Your task to perform on an android device: turn off smart reply in the gmail app Image 0: 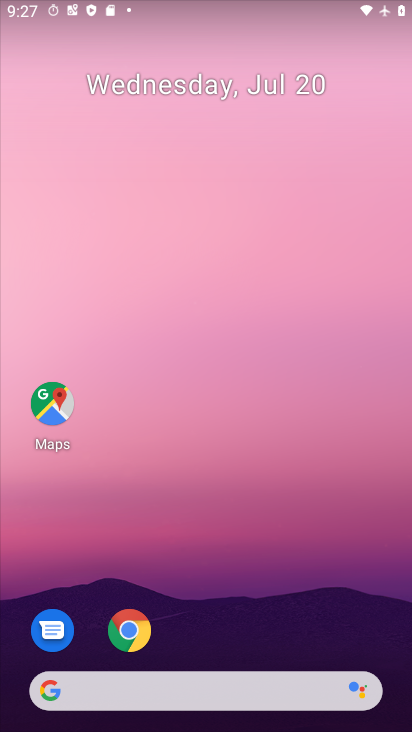
Step 0: drag from (242, 649) to (284, 95)
Your task to perform on an android device: turn off smart reply in the gmail app Image 1: 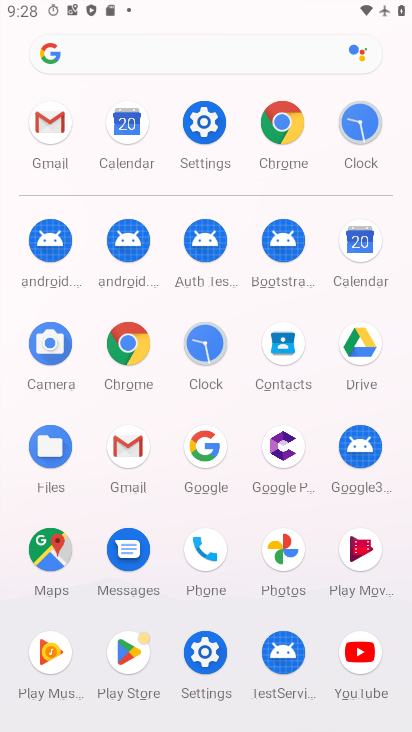
Step 1: click (146, 458)
Your task to perform on an android device: turn off smart reply in the gmail app Image 2: 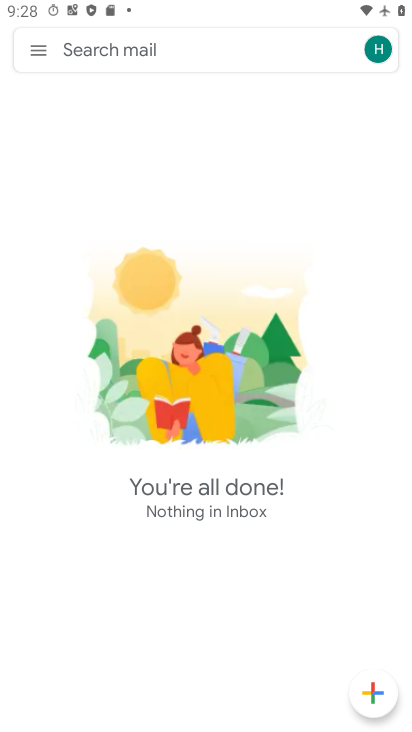
Step 2: click (43, 51)
Your task to perform on an android device: turn off smart reply in the gmail app Image 3: 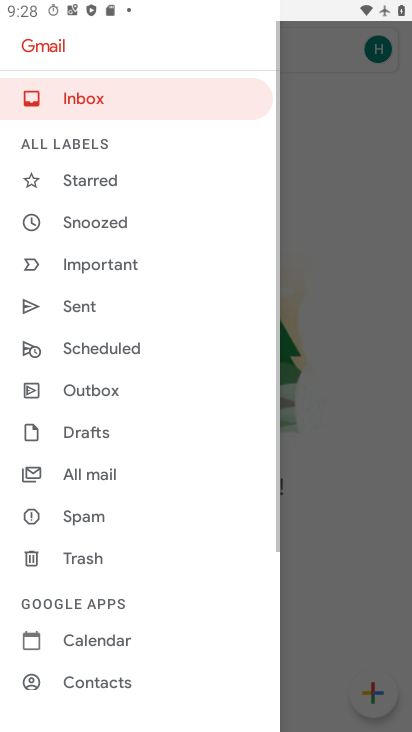
Step 3: drag from (102, 676) to (133, 202)
Your task to perform on an android device: turn off smart reply in the gmail app Image 4: 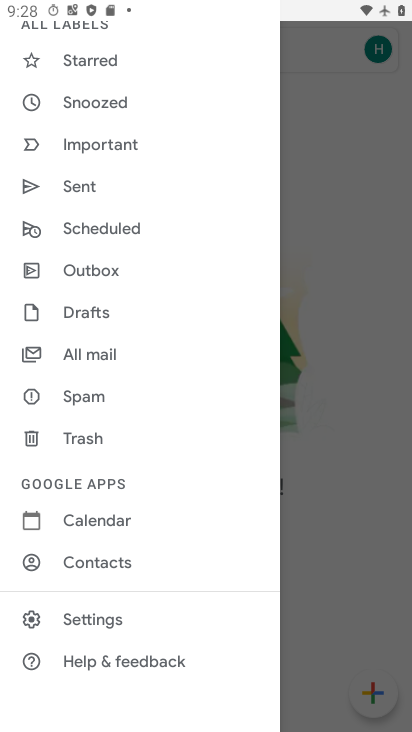
Step 4: click (115, 628)
Your task to perform on an android device: turn off smart reply in the gmail app Image 5: 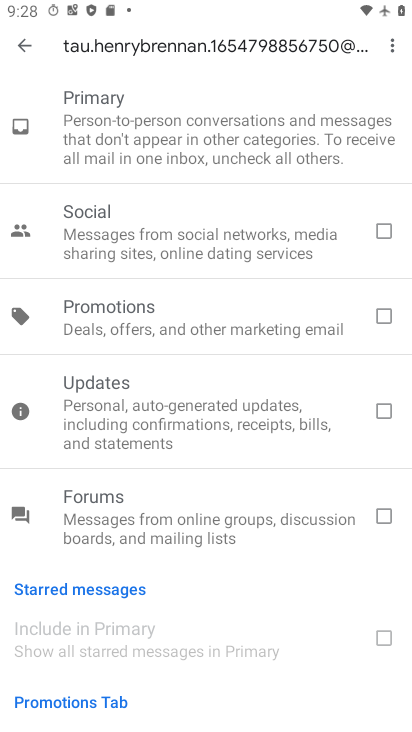
Step 5: click (24, 45)
Your task to perform on an android device: turn off smart reply in the gmail app Image 6: 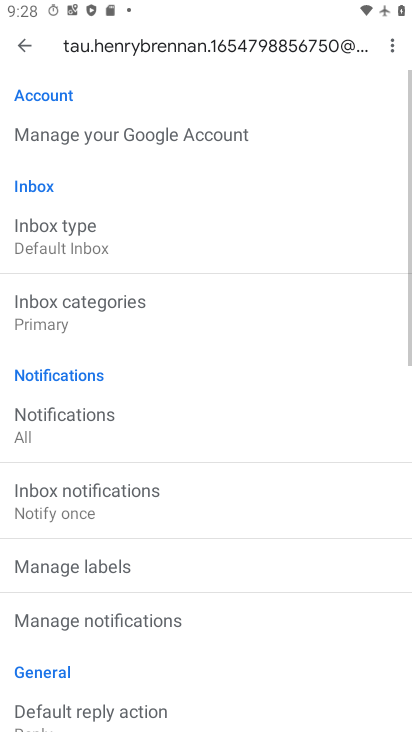
Step 6: drag from (183, 536) to (251, 144)
Your task to perform on an android device: turn off smart reply in the gmail app Image 7: 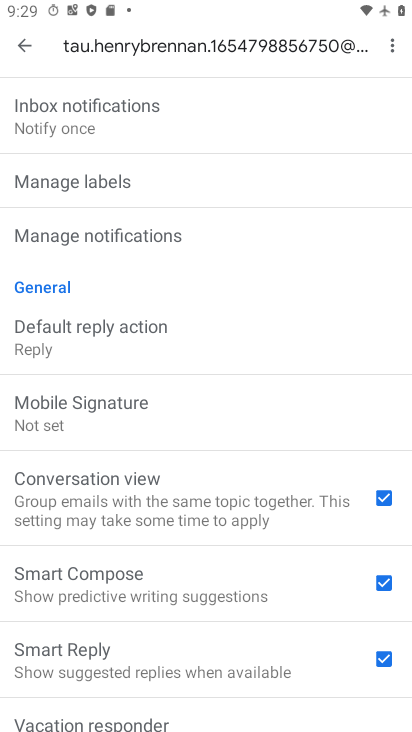
Step 7: drag from (207, 581) to (260, 152)
Your task to perform on an android device: turn off smart reply in the gmail app Image 8: 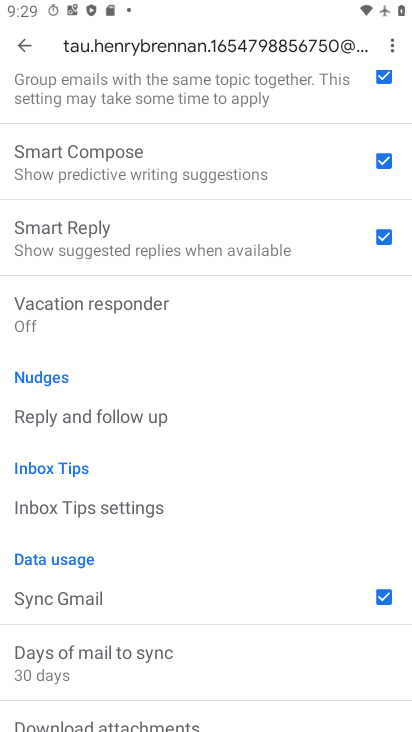
Step 8: click (390, 241)
Your task to perform on an android device: turn off smart reply in the gmail app Image 9: 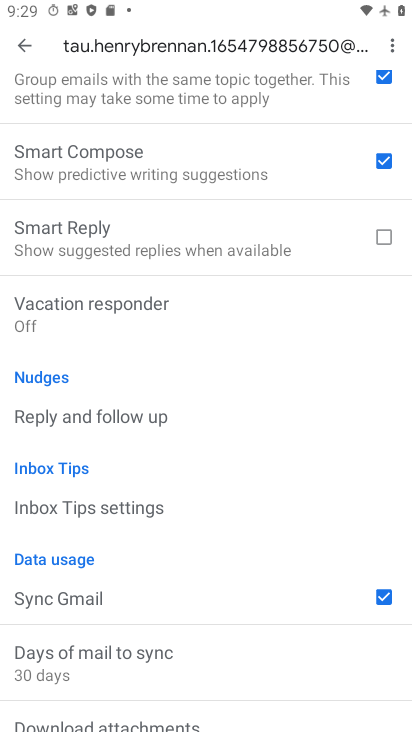
Step 9: task complete